Your task to perform on an android device: turn off location history Image 0: 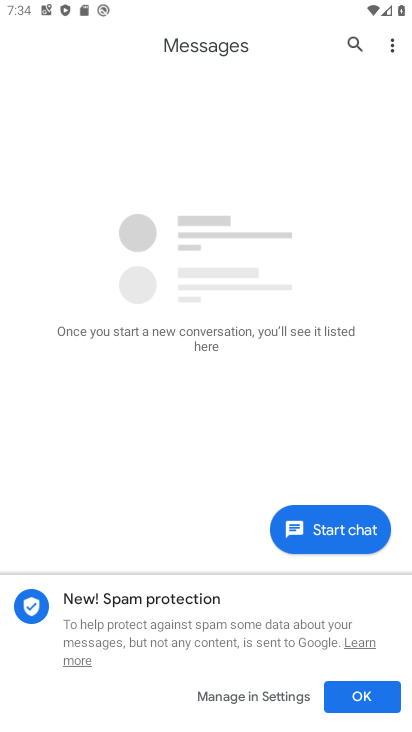
Step 0: press home button
Your task to perform on an android device: turn off location history Image 1: 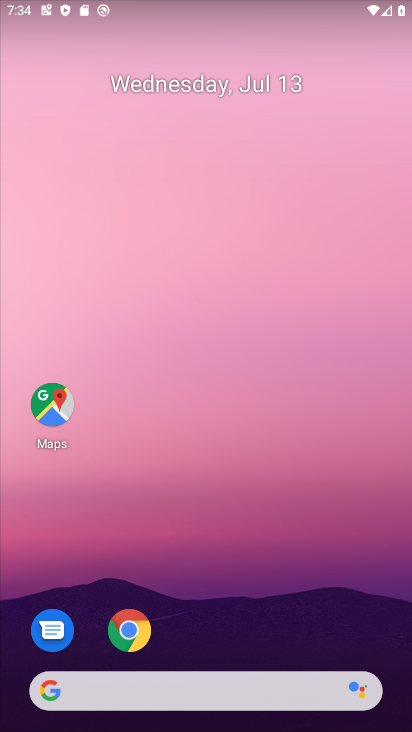
Step 1: drag from (353, 608) to (352, 119)
Your task to perform on an android device: turn off location history Image 2: 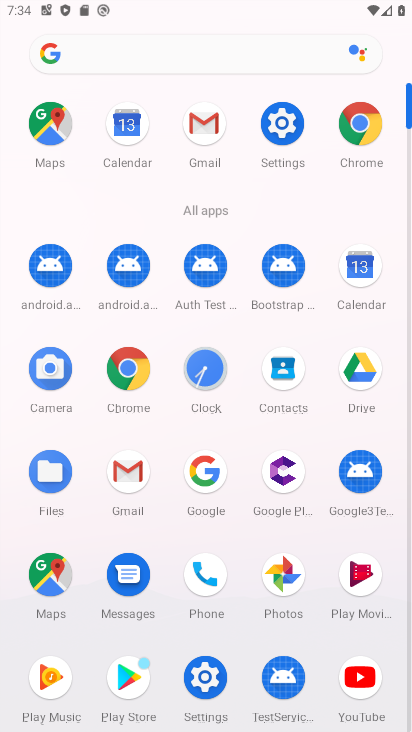
Step 2: click (286, 125)
Your task to perform on an android device: turn off location history Image 3: 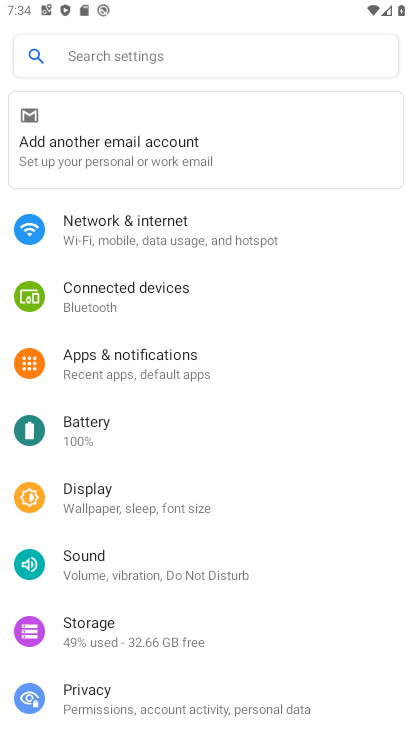
Step 3: drag from (317, 393) to (322, 254)
Your task to perform on an android device: turn off location history Image 4: 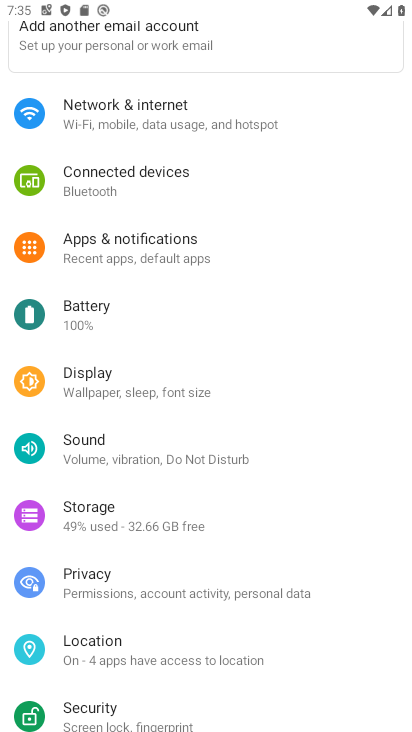
Step 4: drag from (333, 410) to (333, 322)
Your task to perform on an android device: turn off location history Image 5: 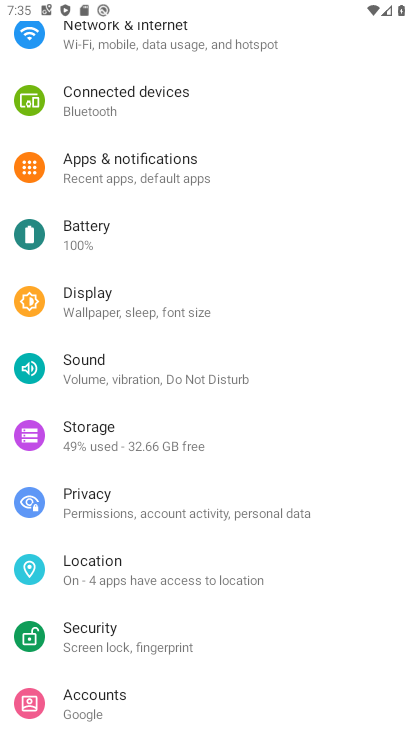
Step 5: drag from (341, 435) to (344, 337)
Your task to perform on an android device: turn off location history Image 6: 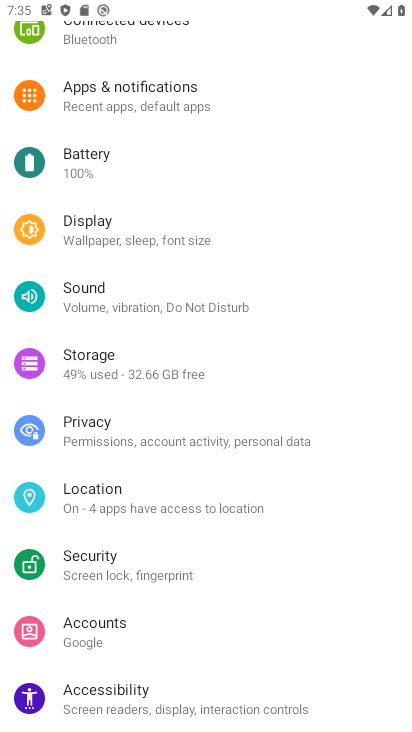
Step 6: drag from (339, 530) to (347, 341)
Your task to perform on an android device: turn off location history Image 7: 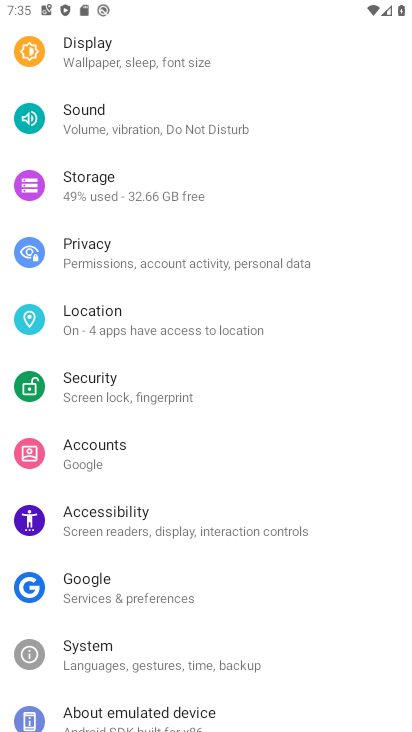
Step 7: drag from (330, 485) to (340, 316)
Your task to perform on an android device: turn off location history Image 8: 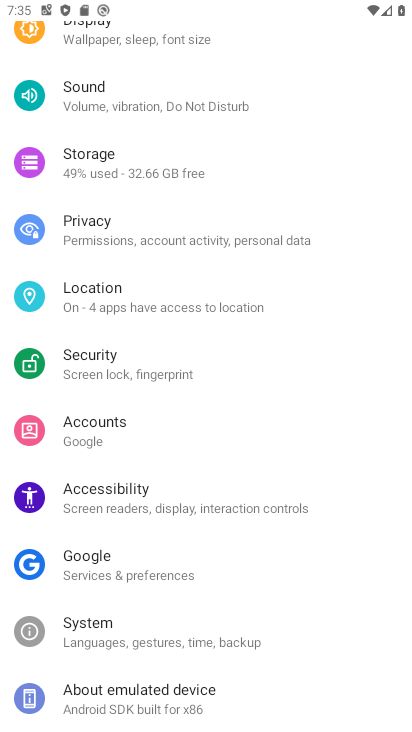
Step 8: drag from (340, 282) to (339, 430)
Your task to perform on an android device: turn off location history Image 9: 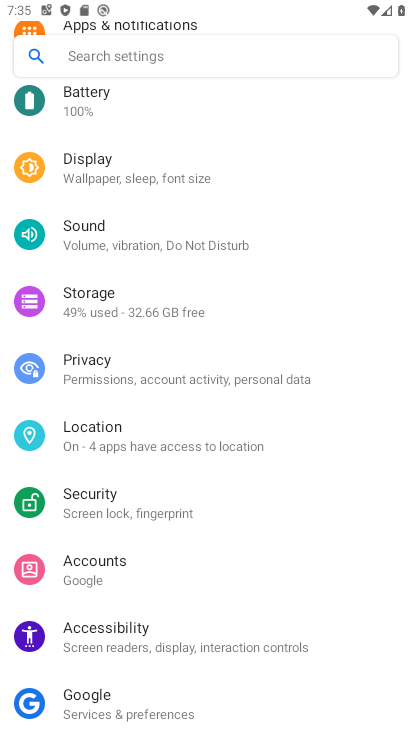
Step 9: drag from (350, 264) to (359, 387)
Your task to perform on an android device: turn off location history Image 10: 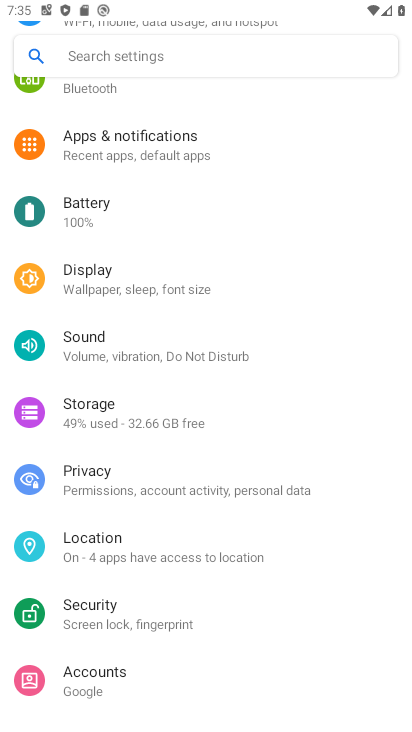
Step 10: drag from (340, 259) to (344, 383)
Your task to perform on an android device: turn off location history Image 11: 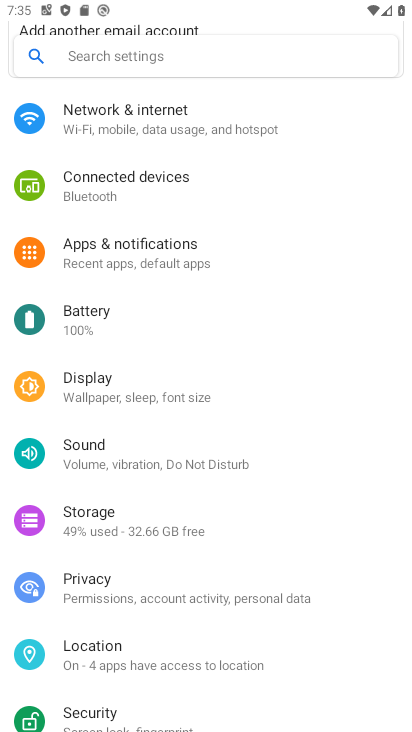
Step 11: drag from (334, 243) to (351, 353)
Your task to perform on an android device: turn off location history Image 12: 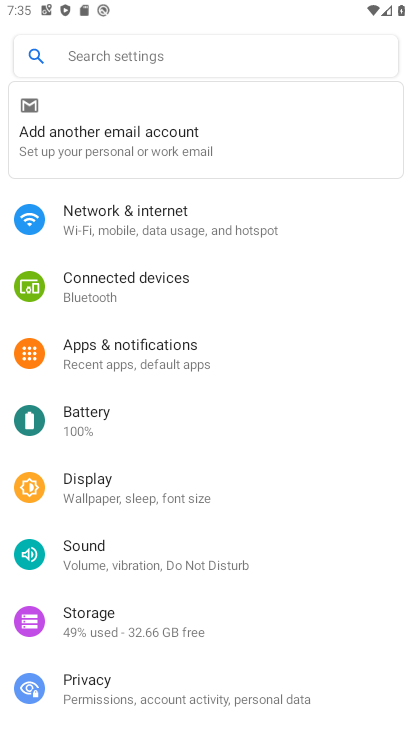
Step 12: drag from (326, 496) to (329, 381)
Your task to perform on an android device: turn off location history Image 13: 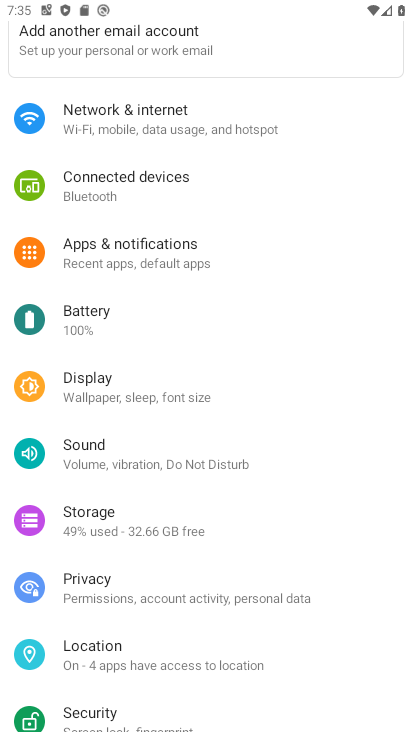
Step 13: drag from (324, 483) to (335, 303)
Your task to perform on an android device: turn off location history Image 14: 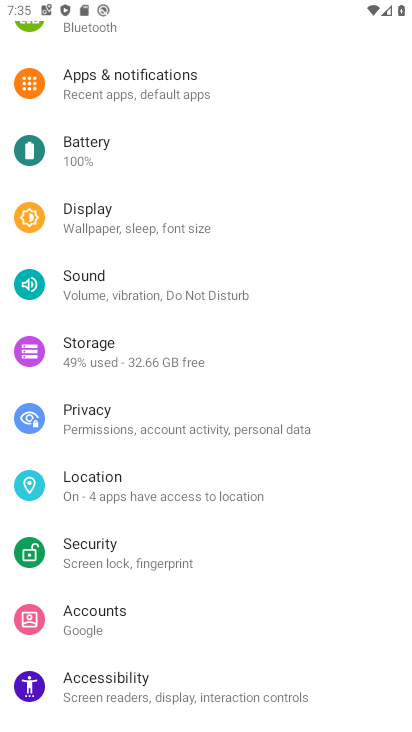
Step 14: drag from (317, 521) to (340, 289)
Your task to perform on an android device: turn off location history Image 15: 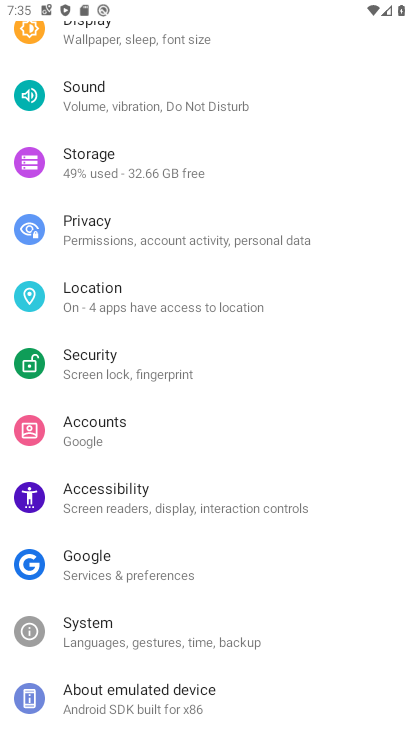
Step 15: drag from (378, 580) to (360, 398)
Your task to perform on an android device: turn off location history Image 16: 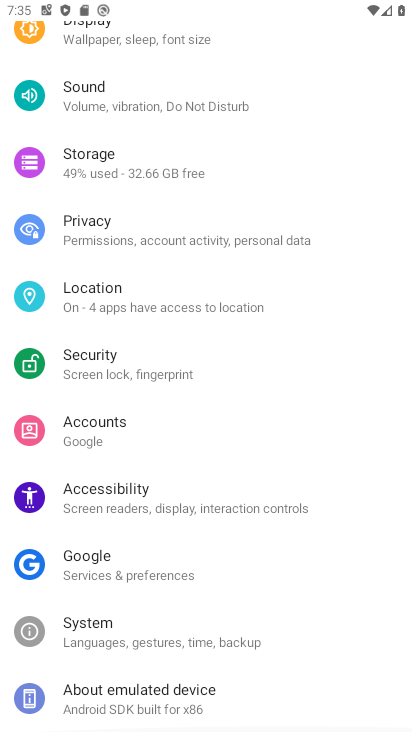
Step 16: click (255, 312)
Your task to perform on an android device: turn off location history Image 17: 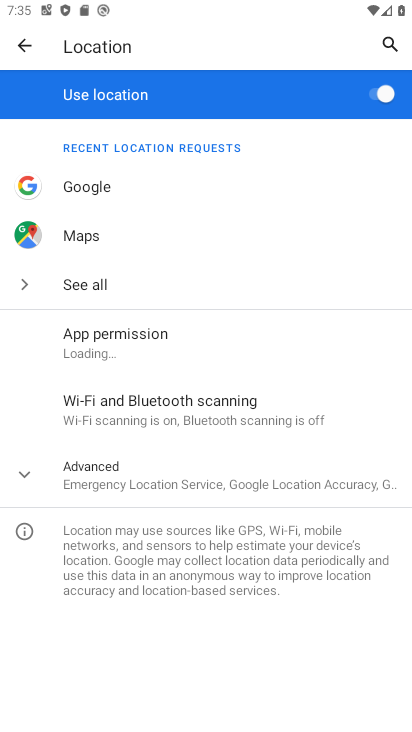
Step 17: click (192, 472)
Your task to perform on an android device: turn off location history Image 18: 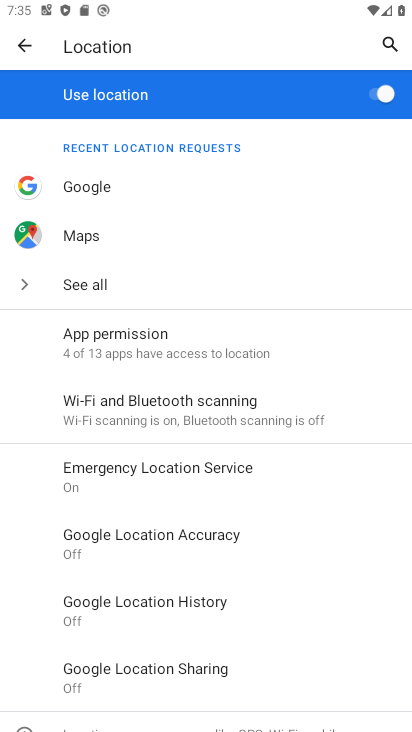
Step 18: task complete